Your task to perform on an android device: turn on airplane mode Image 0: 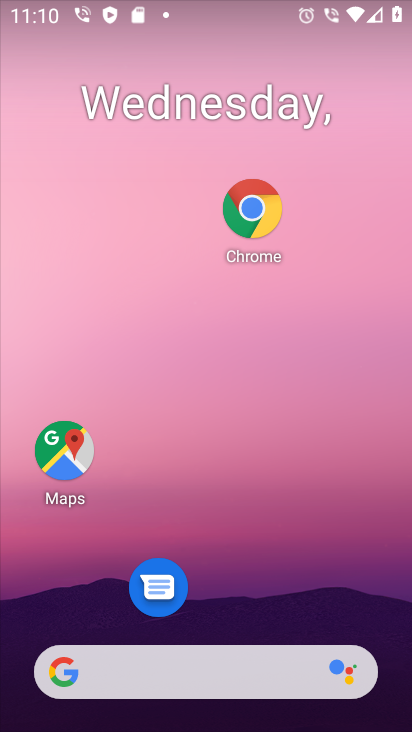
Step 0: drag from (256, 581) to (179, 9)
Your task to perform on an android device: turn on airplane mode Image 1: 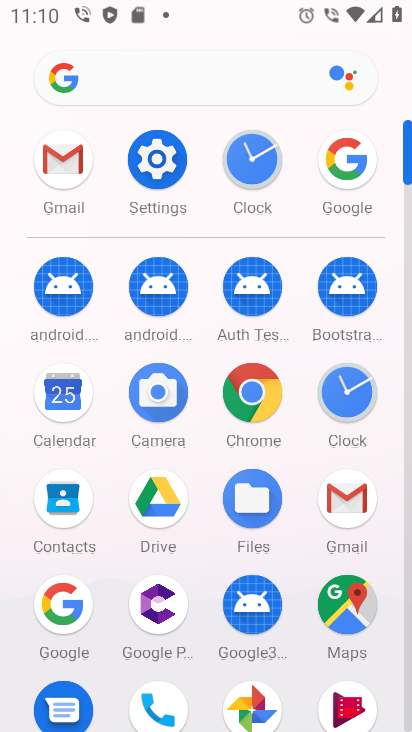
Step 1: click (152, 165)
Your task to perform on an android device: turn on airplane mode Image 2: 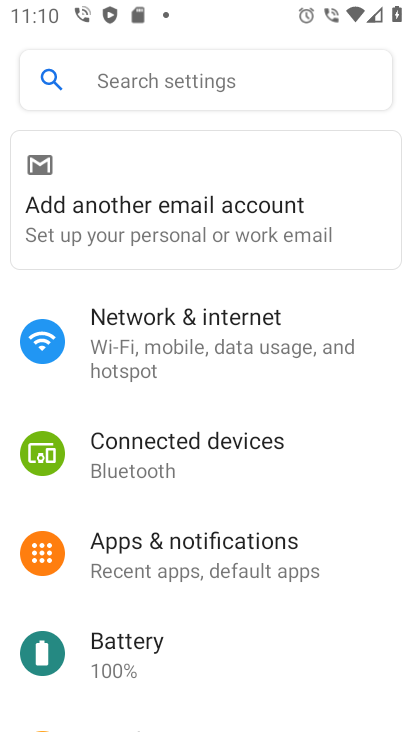
Step 2: click (197, 347)
Your task to perform on an android device: turn on airplane mode Image 3: 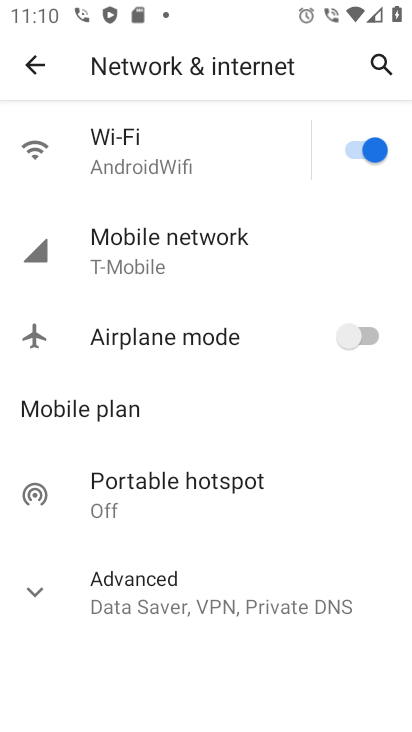
Step 3: click (375, 340)
Your task to perform on an android device: turn on airplane mode Image 4: 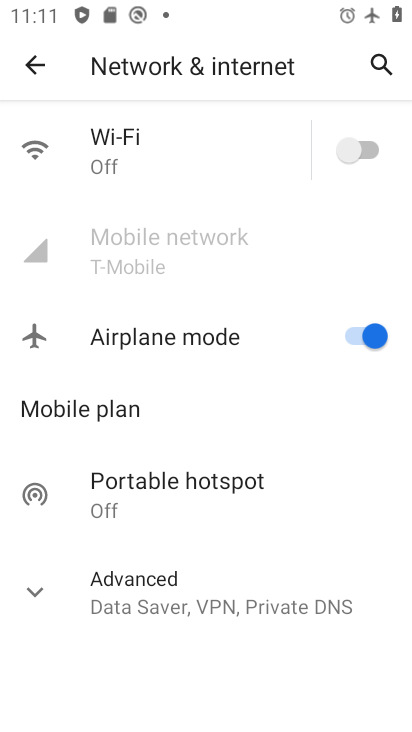
Step 4: task complete